Your task to perform on an android device: turn on wifi Image 0: 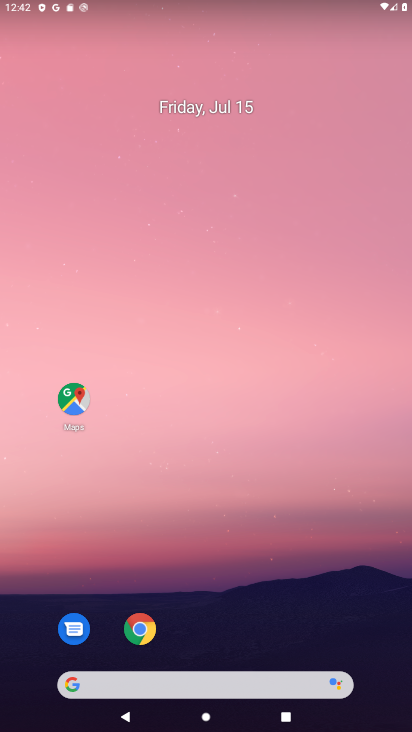
Step 0: drag from (376, 631) to (262, 101)
Your task to perform on an android device: turn on wifi Image 1: 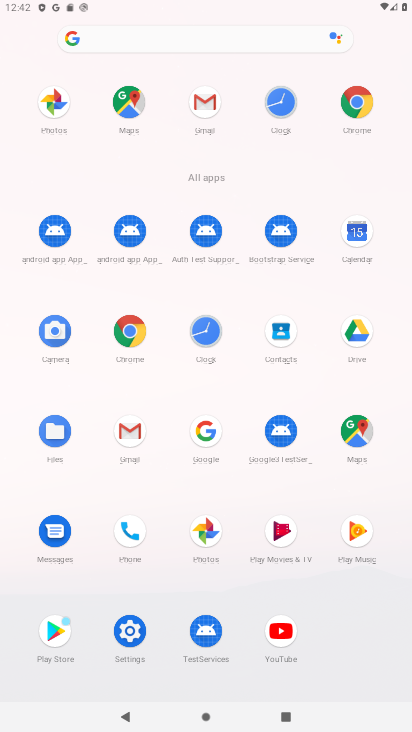
Step 1: click (127, 633)
Your task to perform on an android device: turn on wifi Image 2: 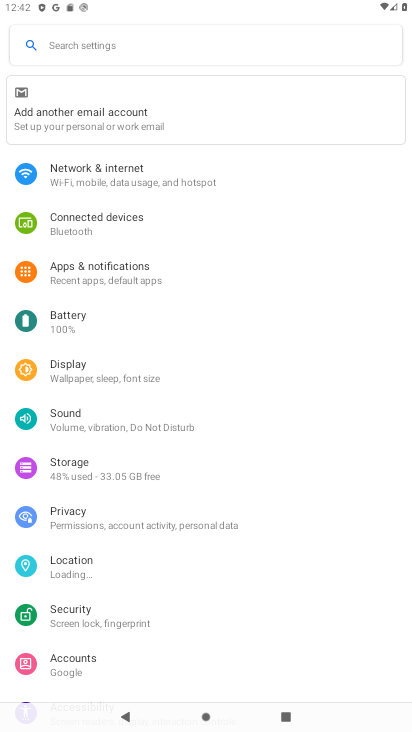
Step 2: click (262, 184)
Your task to perform on an android device: turn on wifi Image 3: 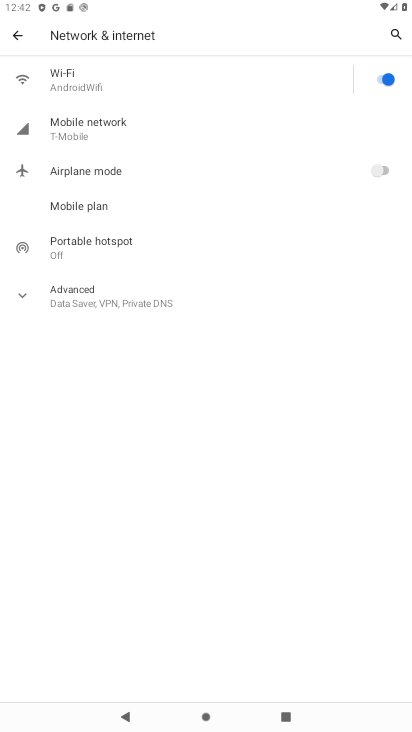
Step 3: task complete